Your task to perform on an android device: change your default location settings in chrome Image 0: 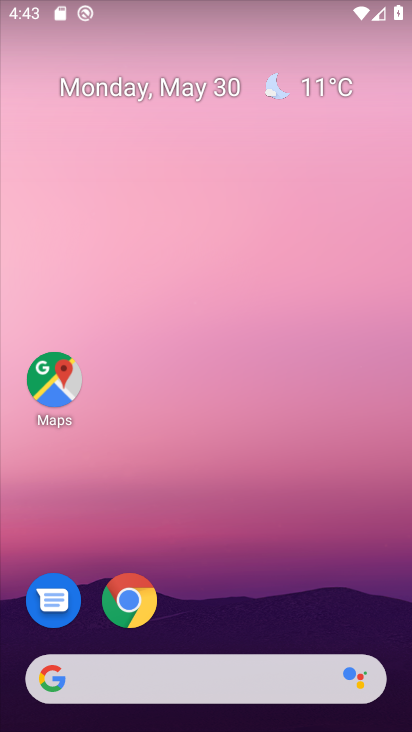
Step 0: drag from (306, 565) to (327, 40)
Your task to perform on an android device: change your default location settings in chrome Image 1: 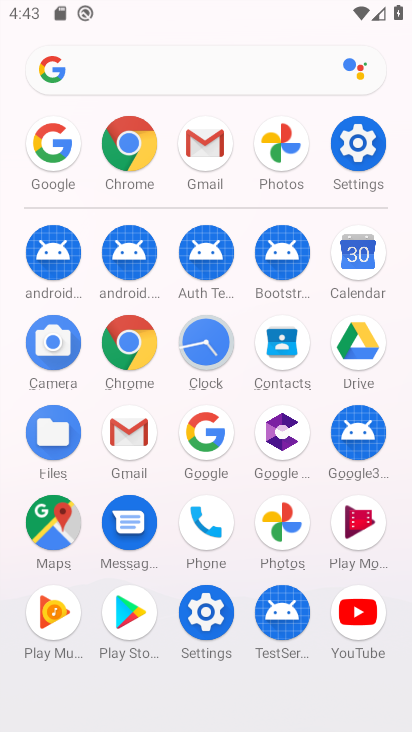
Step 1: click (124, 132)
Your task to perform on an android device: change your default location settings in chrome Image 2: 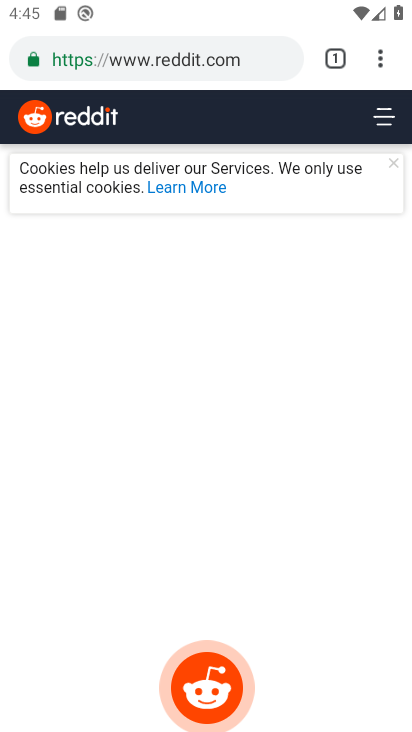
Step 2: drag from (378, 60) to (181, 630)
Your task to perform on an android device: change your default location settings in chrome Image 3: 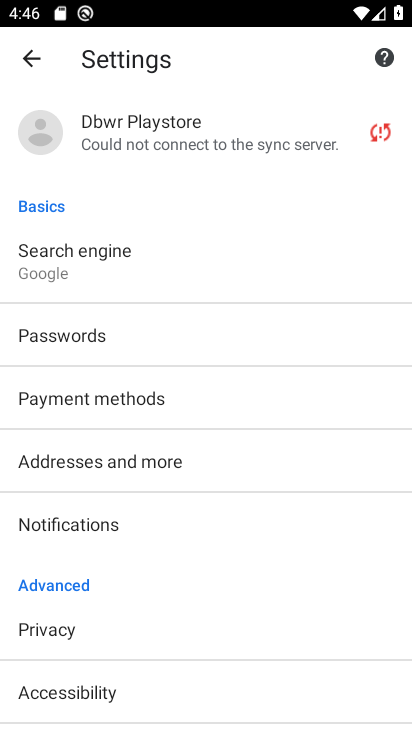
Step 3: drag from (110, 625) to (208, 207)
Your task to perform on an android device: change your default location settings in chrome Image 4: 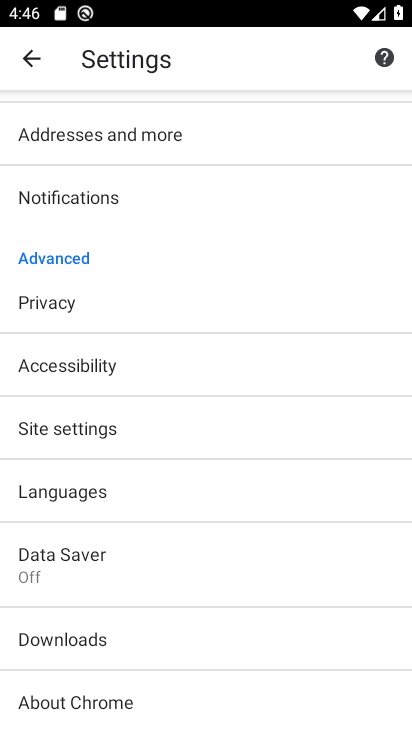
Step 4: drag from (138, 630) to (207, 244)
Your task to perform on an android device: change your default location settings in chrome Image 5: 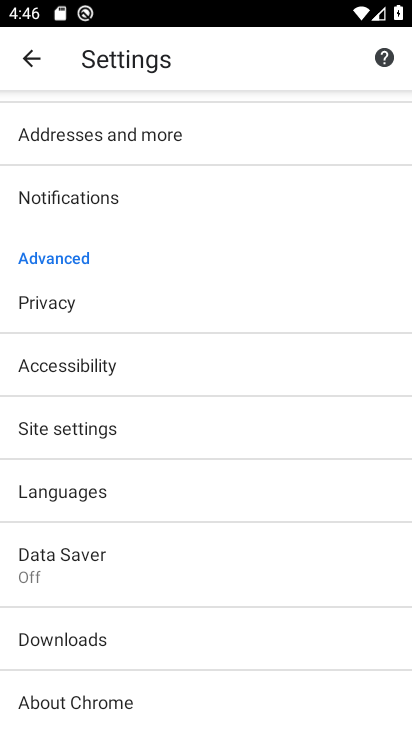
Step 5: click (51, 429)
Your task to perform on an android device: change your default location settings in chrome Image 6: 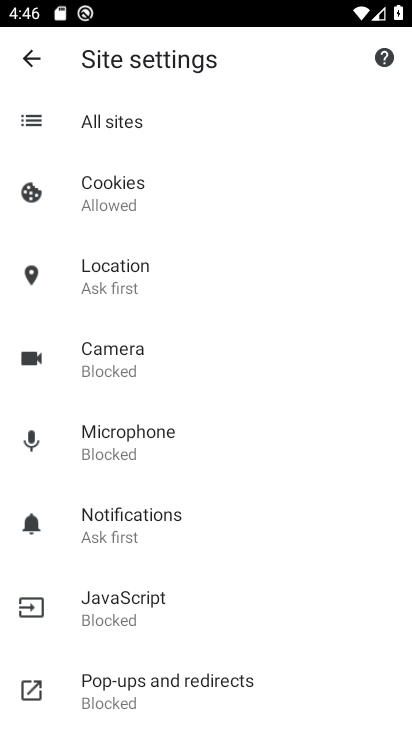
Step 6: click (123, 292)
Your task to perform on an android device: change your default location settings in chrome Image 7: 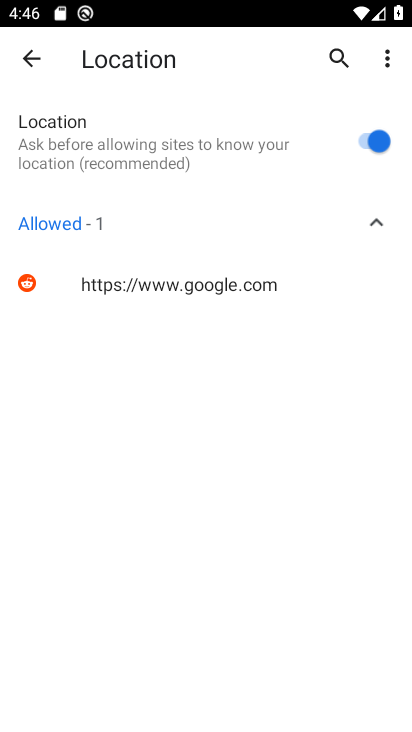
Step 7: click (383, 133)
Your task to perform on an android device: change your default location settings in chrome Image 8: 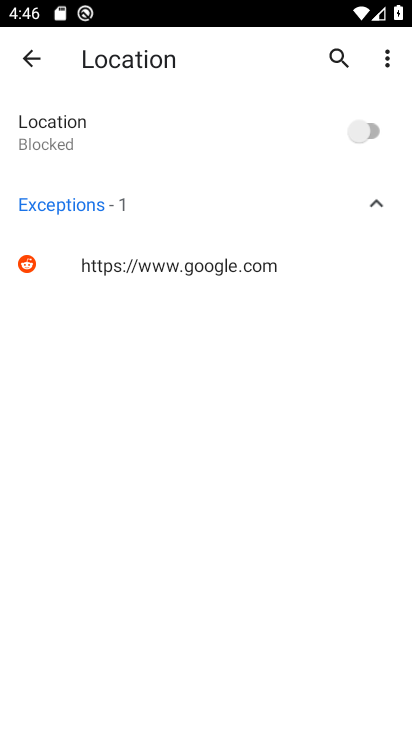
Step 8: task complete